Your task to perform on an android device: turn off location Image 0: 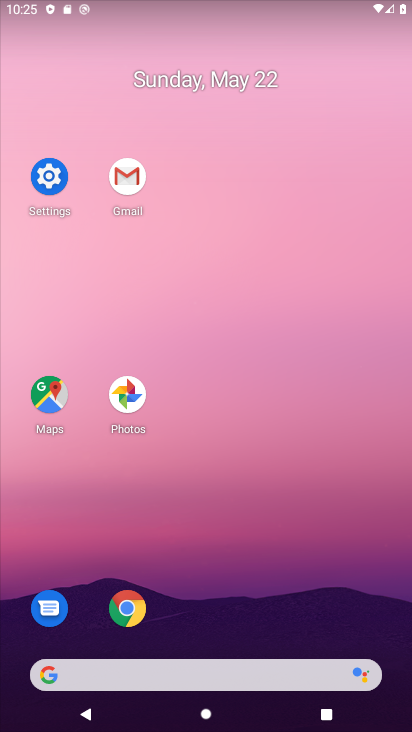
Step 0: click (47, 197)
Your task to perform on an android device: turn off location Image 1: 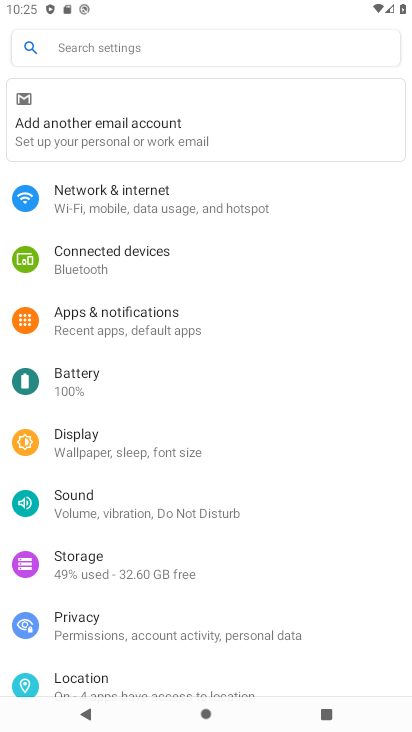
Step 1: click (135, 677)
Your task to perform on an android device: turn off location Image 2: 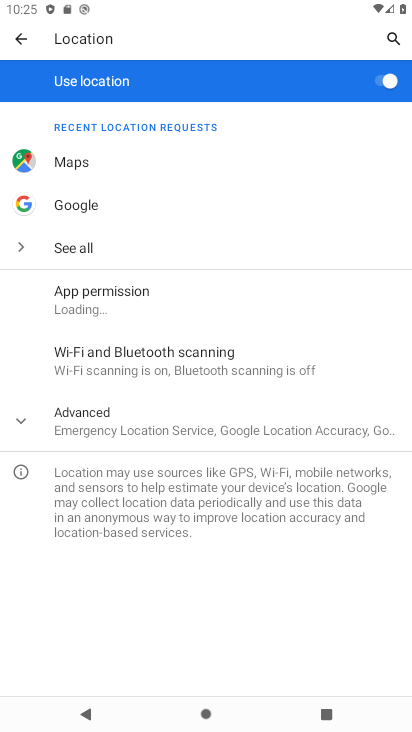
Step 2: click (400, 90)
Your task to perform on an android device: turn off location Image 3: 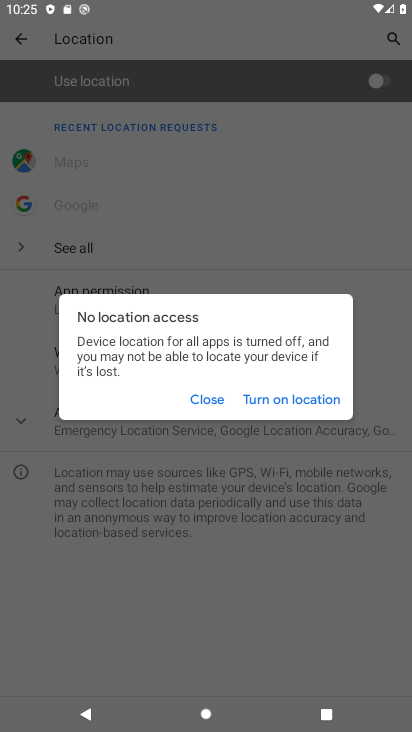
Step 3: task complete